Your task to perform on an android device: turn off improve location accuracy Image 0: 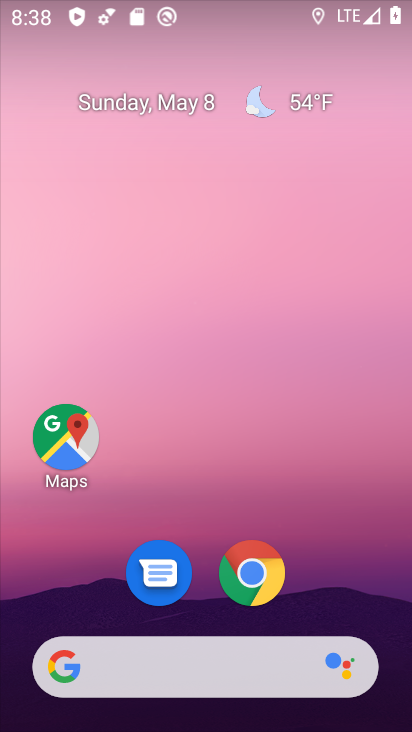
Step 0: drag from (201, 728) to (160, 119)
Your task to perform on an android device: turn off improve location accuracy Image 1: 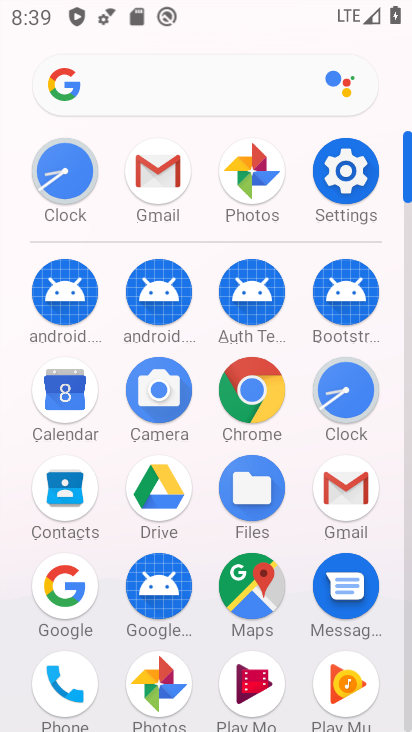
Step 1: click (347, 178)
Your task to perform on an android device: turn off improve location accuracy Image 2: 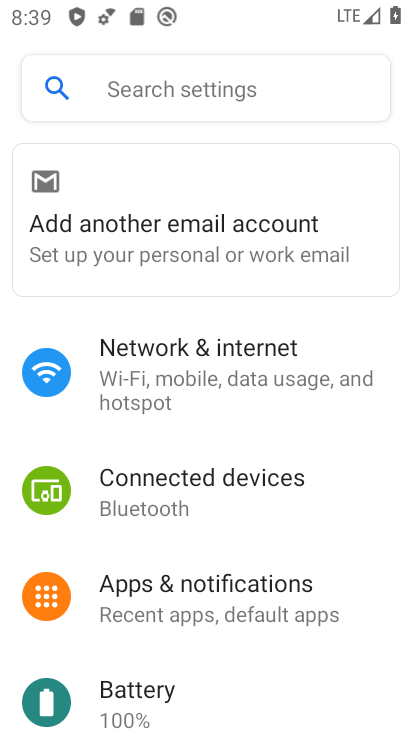
Step 2: drag from (216, 678) to (203, 351)
Your task to perform on an android device: turn off improve location accuracy Image 3: 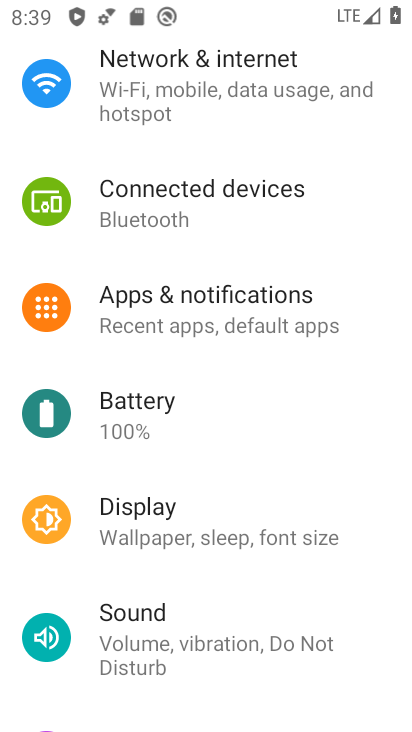
Step 3: drag from (215, 681) to (202, 390)
Your task to perform on an android device: turn off improve location accuracy Image 4: 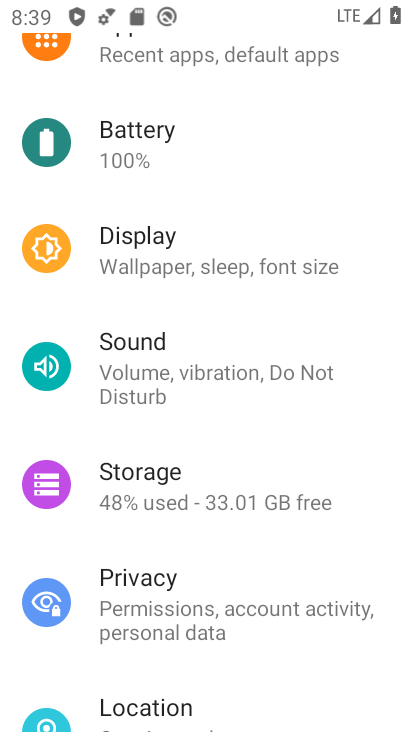
Step 4: click (174, 701)
Your task to perform on an android device: turn off improve location accuracy Image 5: 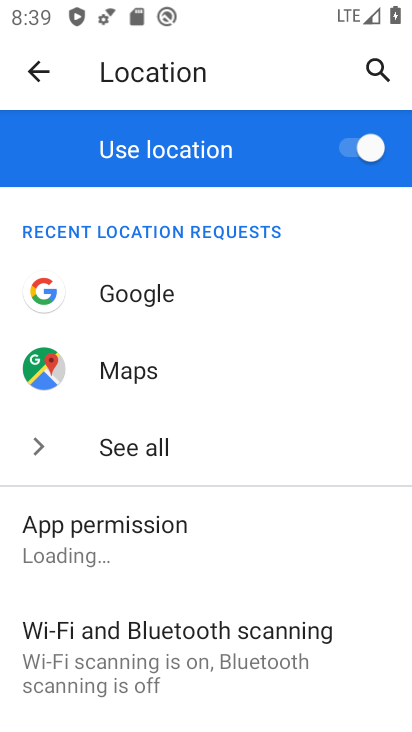
Step 5: drag from (187, 605) to (195, 238)
Your task to perform on an android device: turn off improve location accuracy Image 6: 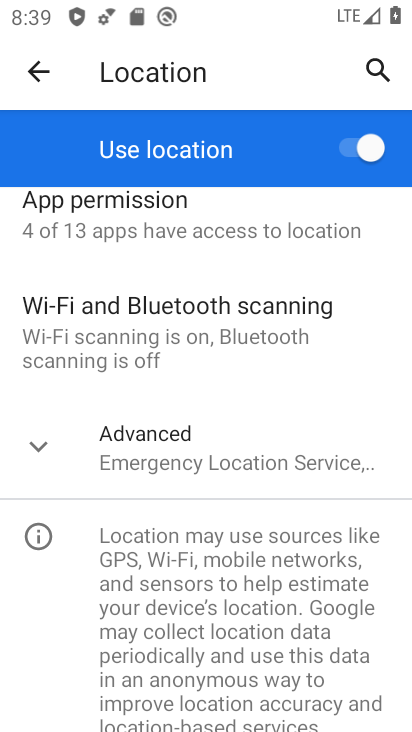
Step 6: click (165, 440)
Your task to perform on an android device: turn off improve location accuracy Image 7: 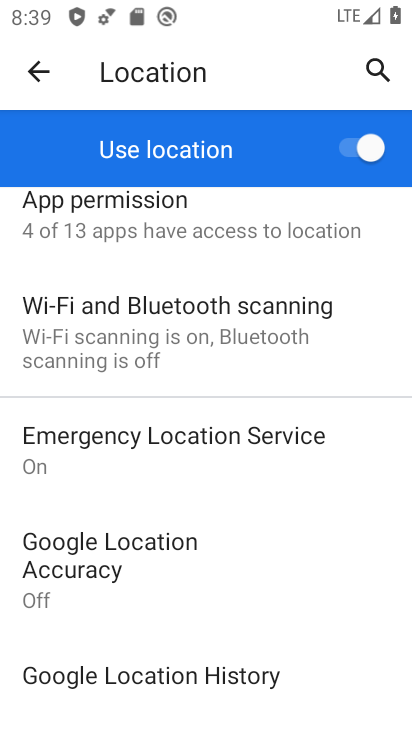
Step 7: click (109, 547)
Your task to perform on an android device: turn off improve location accuracy Image 8: 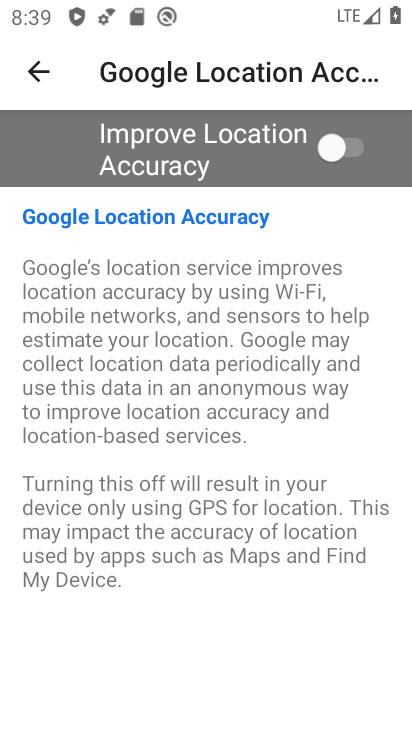
Step 8: task complete